Your task to perform on an android device: Do I have any events this weekend? Image 0: 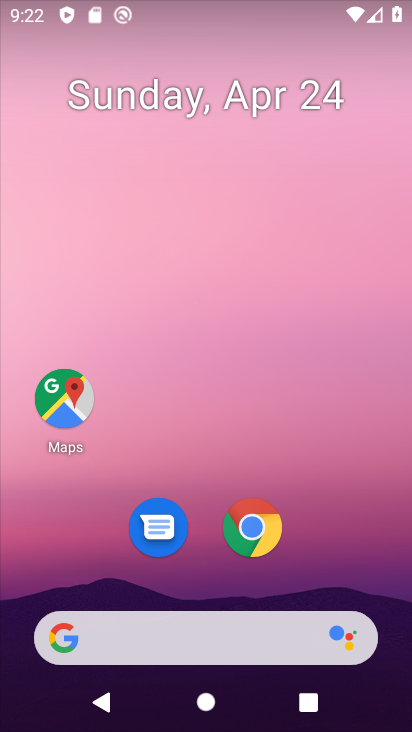
Step 0: drag from (190, 584) to (275, 93)
Your task to perform on an android device: Do I have any events this weekend? Image 1: 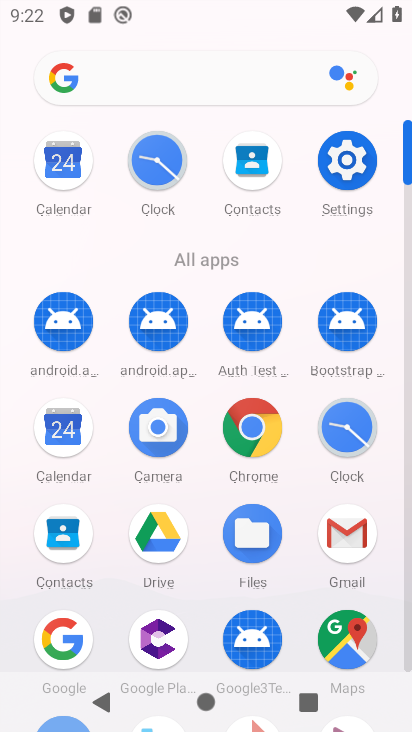
Step 1: click (49, 437)
Your task to perform on an android device: Do I have any events this weekend? Image 2: 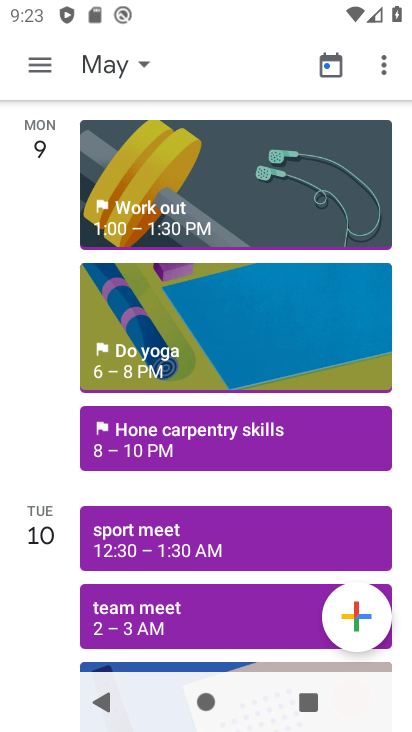
Step 2: click (130, 64)
Your task to perform on an android device: Do I have any events this weekend? Image 3: 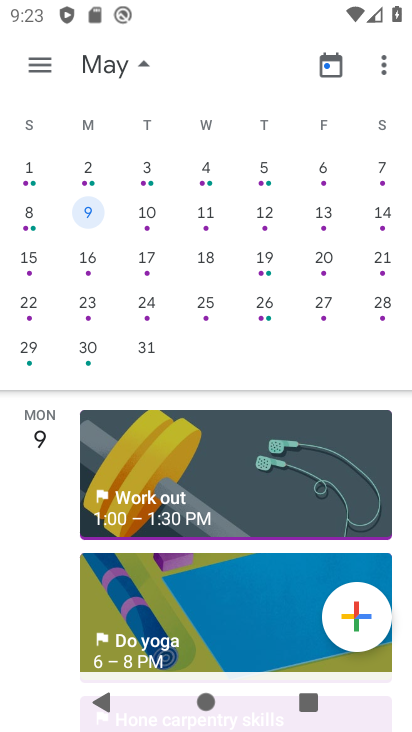
Step 3: drag from (62, 244) to (401, 268)
Your task to perform on an android device: Do I have any events this weekend? Image 4: 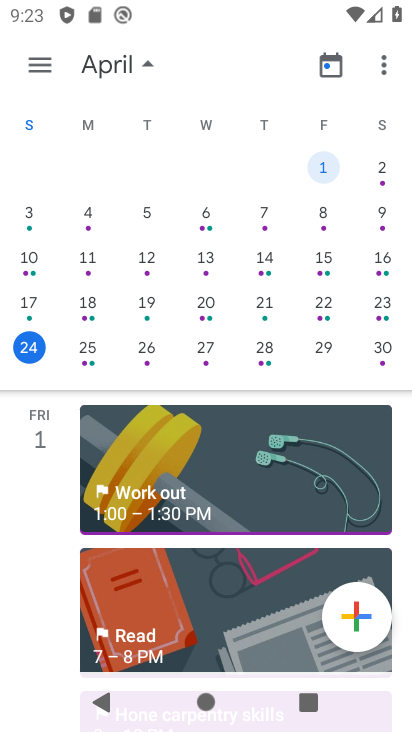
Step 4: drag from (189, 613) to (238, 650)
Your task to perform on an android device: Do I have any events this weekend? Image 5: 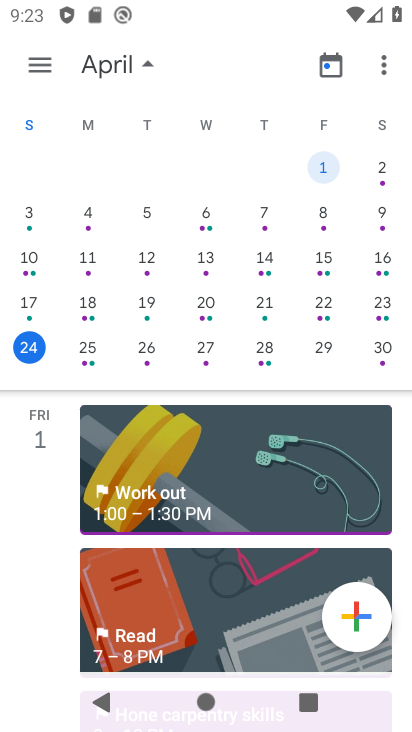
Step 5: click (29, 347)
Your task to perform on an android device: Do I have any events this weekend? Image 6: 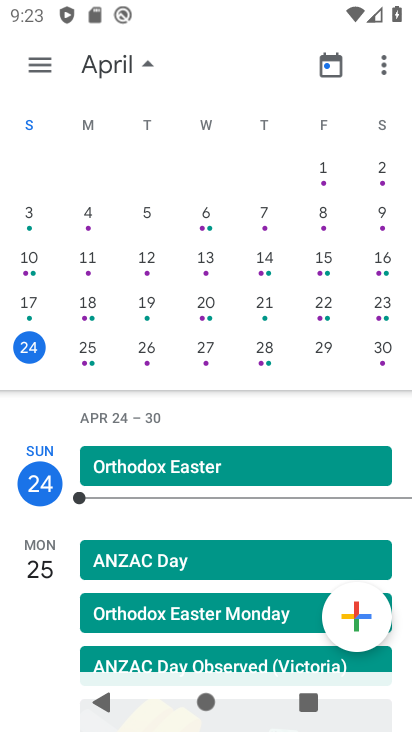
Step 6: drag from (174, 582) to (297, 144)
Your task to perform on an android device: Do I have any events this weekend? Image 7: 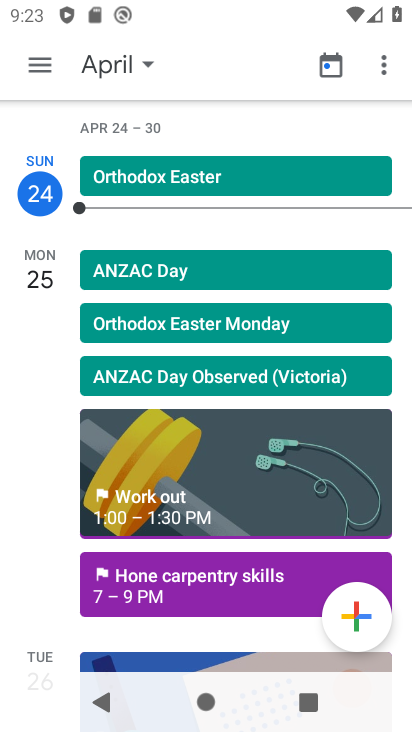
Step 7: drag from (193, 532) to (261, 260)
Your task to perform on an android device: Do I have any events this weekend? Image 8: 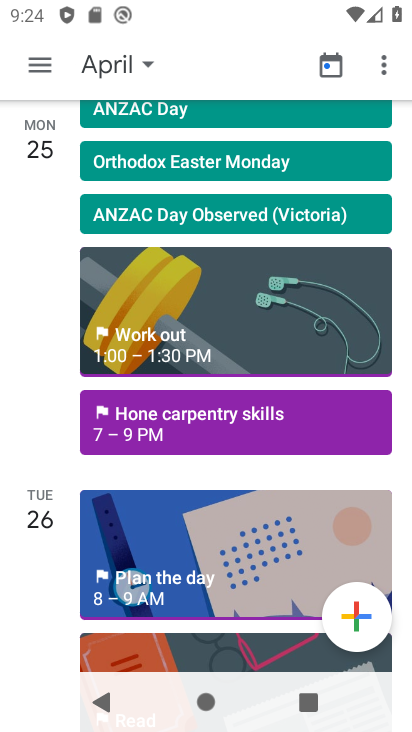
Step 8: drag from (187, 563) to (341, 81)
Your task to perform on an android device: Do I have any events this weekend? Image 9: 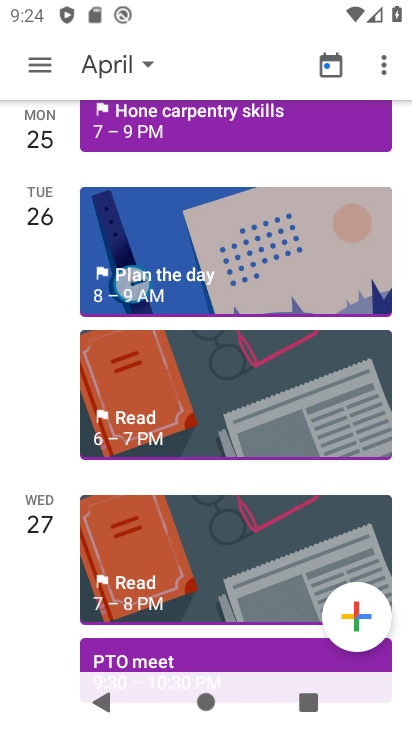
Step 9: drag from (177, 582) to (277, 86)
Your task to perform on an android device: Do I have any events this weekend? Image 10: 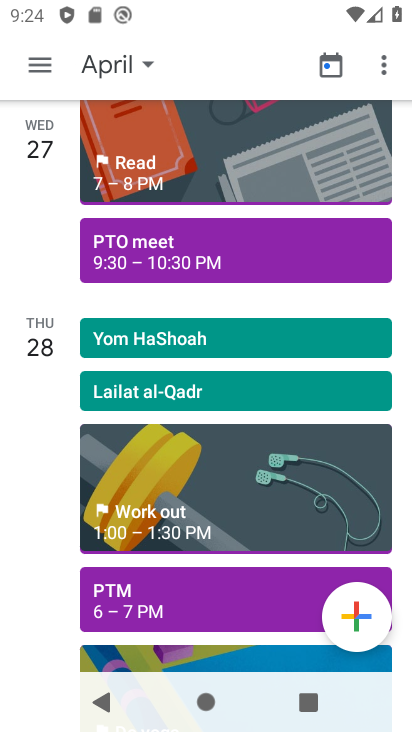
Step 10: click (149, 230)
Your task to perform on an android device: Do I have any events this weekend? Image 11: 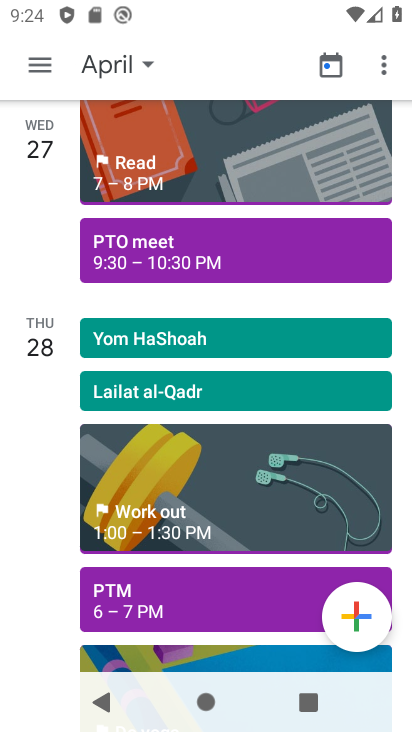
Step 11: click (184, 255)
Your task to perform on an android device: Do I have any events this weekend? Image 12: 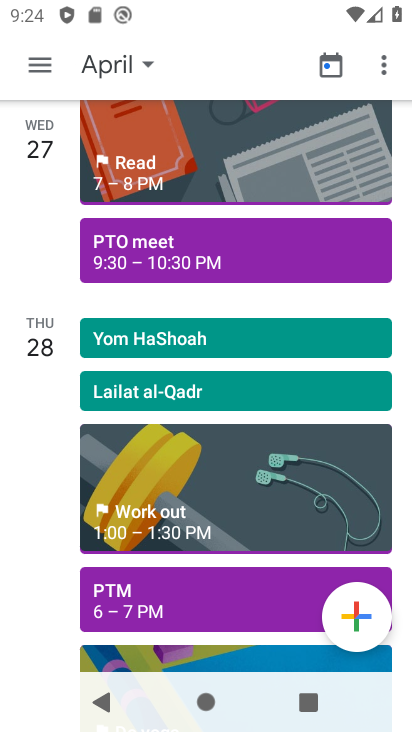
Step 12: click (140, 260)
Your task to perform on an android device: Do I have any events this weekend? Image 13: 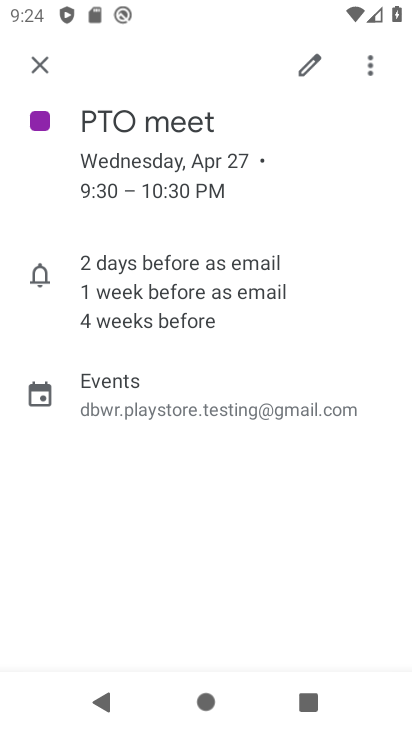
Step 13: task complete